Your task to perform on an android device: check storage Image 0: 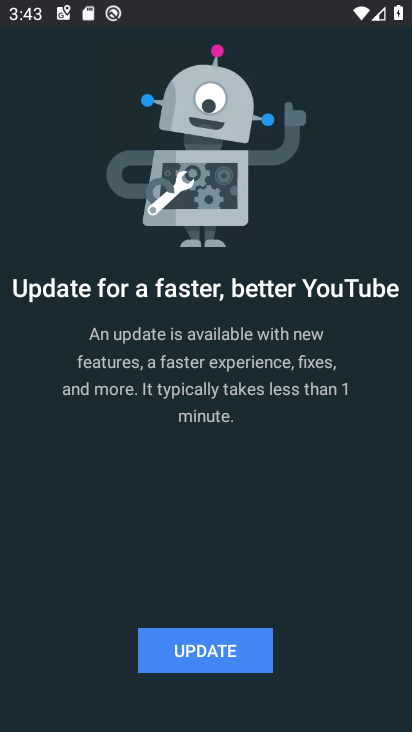
Step 0: press home button
Your task to perform on an android device: check storage Image 1: 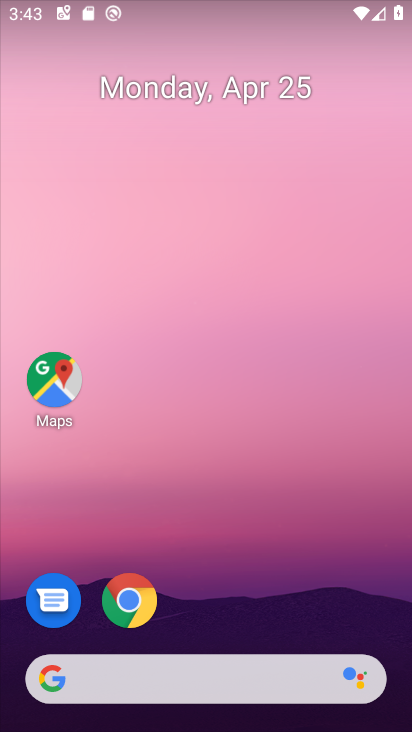
Step 1: drag from (213, 593) to (279, 39)
Your task to perform on an android device: check storage Image 2: 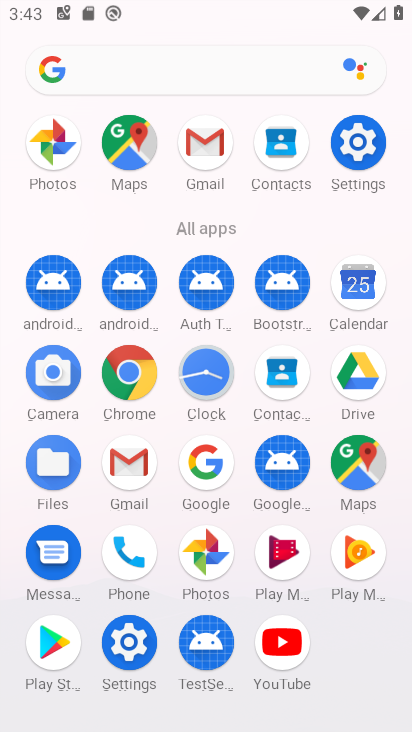
Step 2: click (348, 126)
Your task to perform on an android device: check storage Image 3: 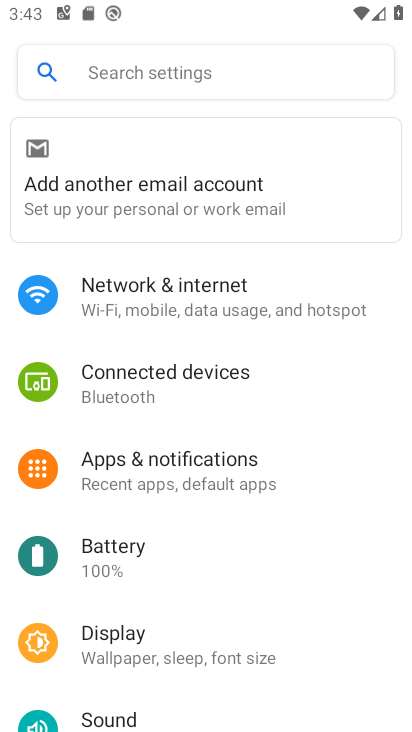
Step 3: drag from (169, 657) to (254, 216)
Your task to perform on an android device: check storage Image 4: 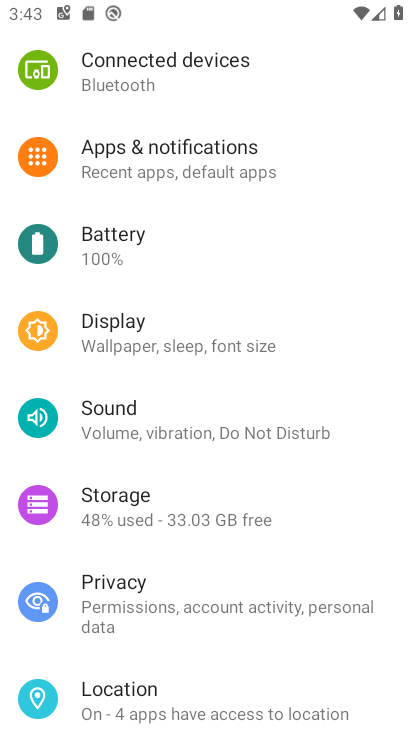
Step 4: click (183, 479)
Your task to perform on an android device: check storage Image 5: 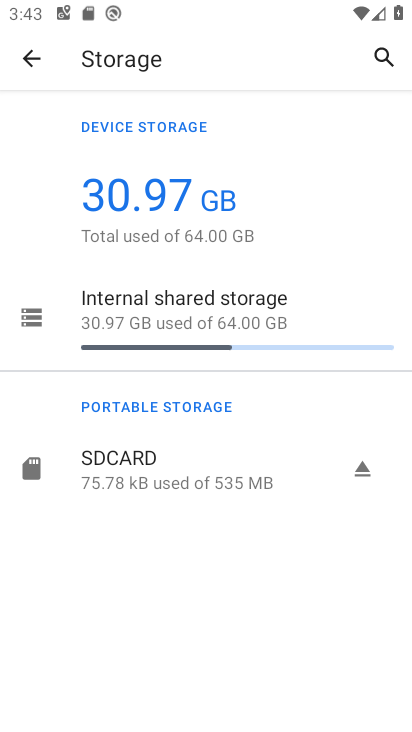
Step 5: task complete